Your task to perform on an android device: turn vacation reply on in the gmail app Image 0: 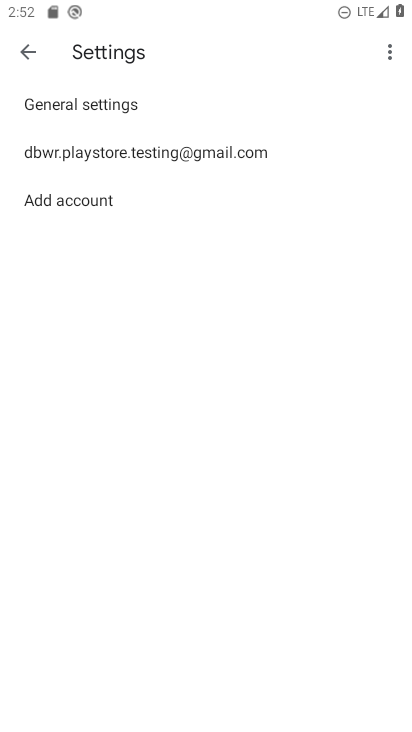
Step 0: drag from (174, 618) to (159, 46)
Your task to perform on an android device: turn vacation reply on in the gmail app Image 1: 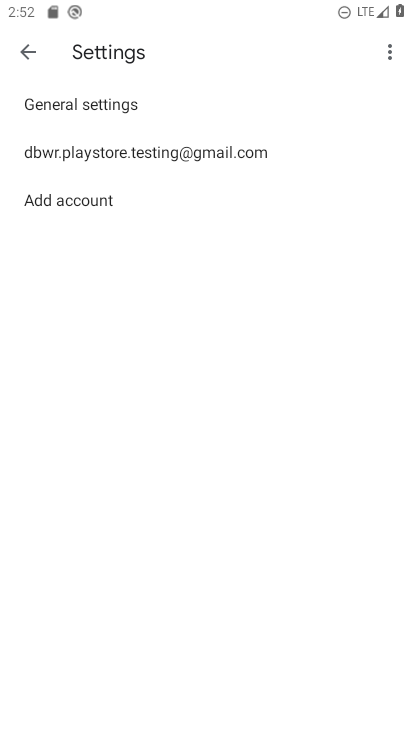
Step 1: press home button
Your task to perform on an android device: turn vacation reply on in the gmail app Image 2: 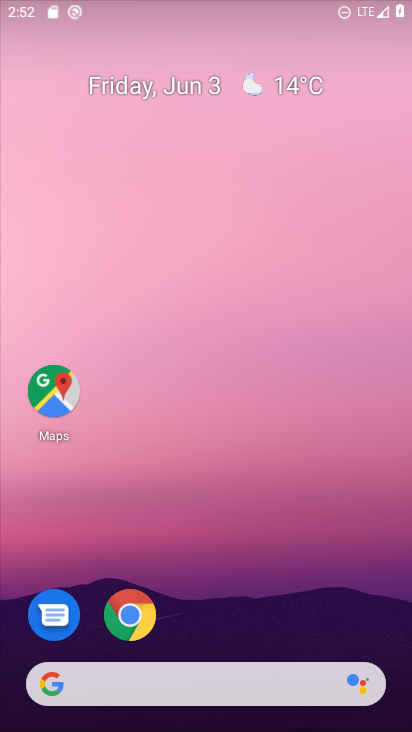
Step 2: drag from (201, 454) to (98, 426)
Your task to perform on an android device: turn vacation reply on in the gmail app Image 3: 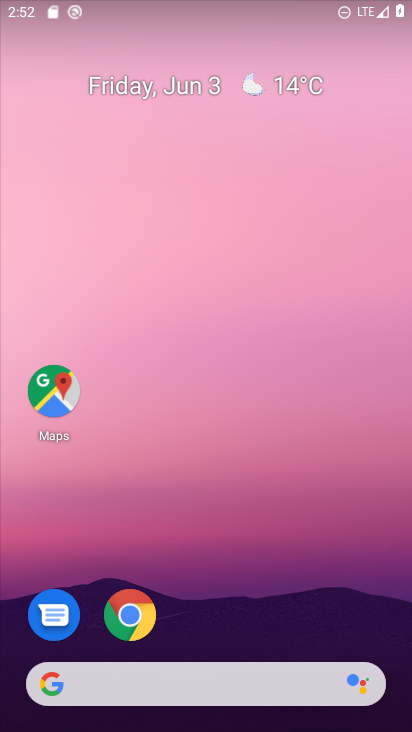
Step 3: drag from (238, 651) to (223, 52)
Your task to perform on an android device: turn vacation reply on in the gmail app Image 4: 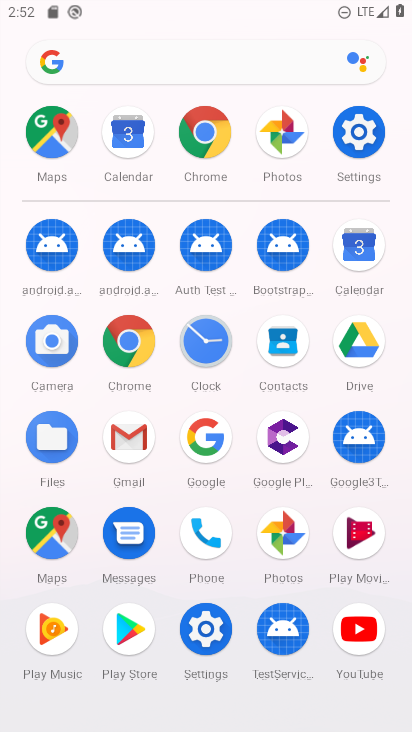
Step 4: click (134, 439)
Your task to perform on an android device: turn vacation reply on in the gmail app Image 5: 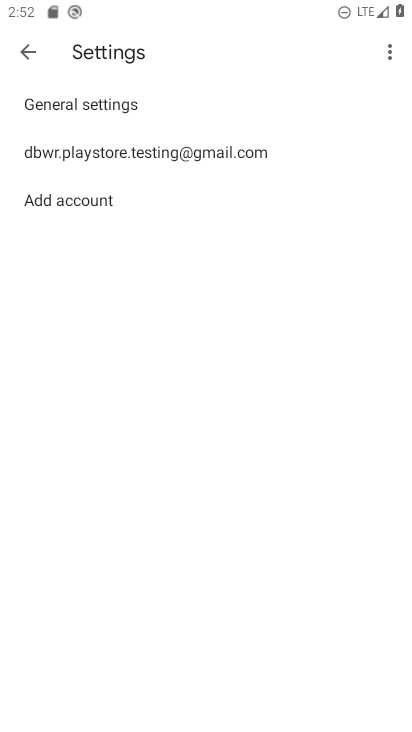
Step 5: click (163, 141)
Your task to perform on an android device: turn vacation reply on in the gmail app Image 6: 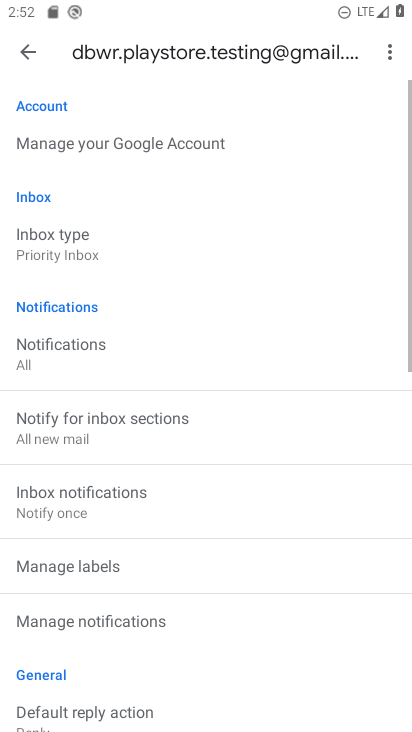
Step 6: drag from (205, 604) to (199, 245)
Your task to perform on an android device: turn vacation reply on in the gmail app Image 7: 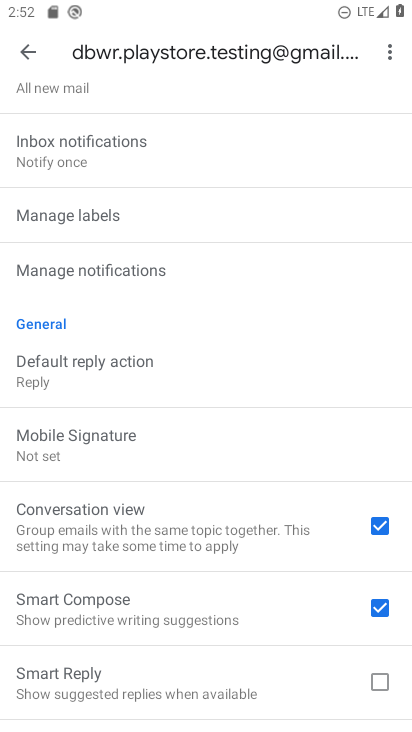
Step 7: drag from (138, 548) to (232, 158)
Your task to perform on an android device: turn vacation reply on in the gmail app Image 8: 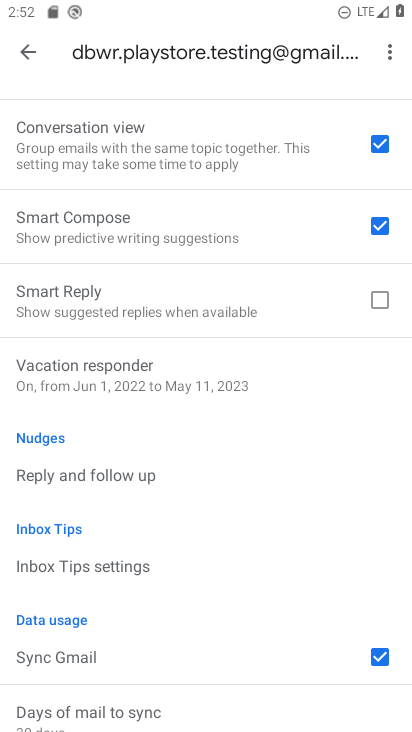
Step 8: click (169, 375)
Your task to perform on an android device: turn vacation reply on in the gmail app Image 9: 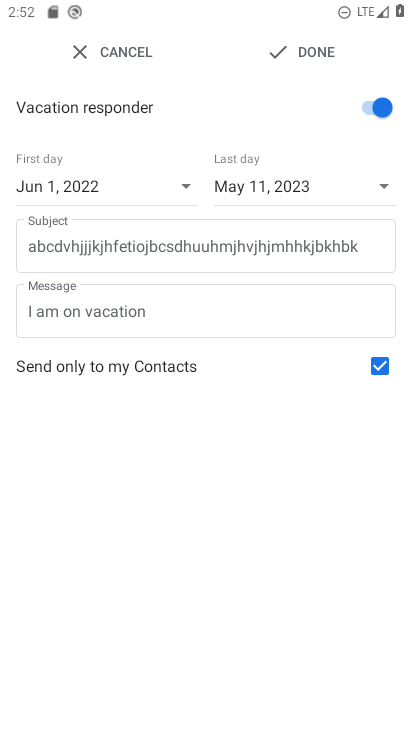
Step 9: drag from (217, 608) to (262, 171)
Your task to perform on an android device: turn vacation reply on in the gmail app Image 10: 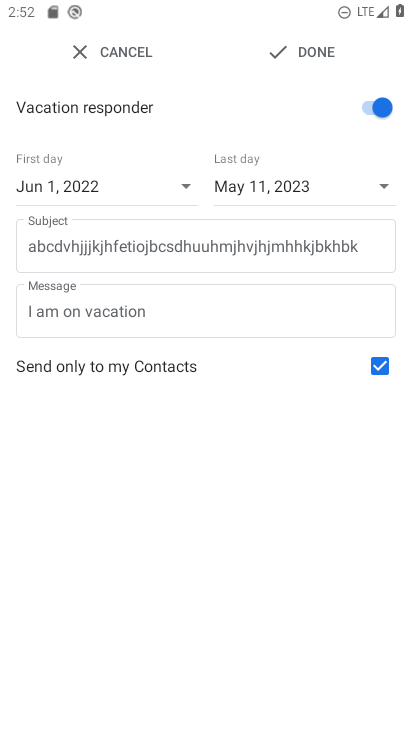
Step 10: click (290, 58)
Your task to perform on an android device: turn vacation reply on in the gmail app Image 11: 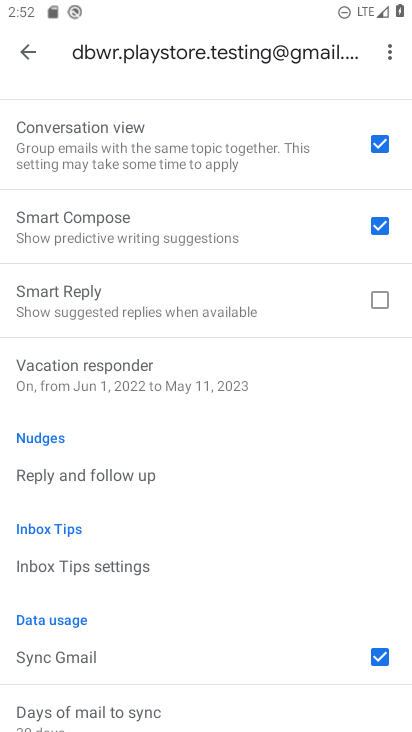
Step 11: task complete